Your task to perform on an android device: check storage Image 0: 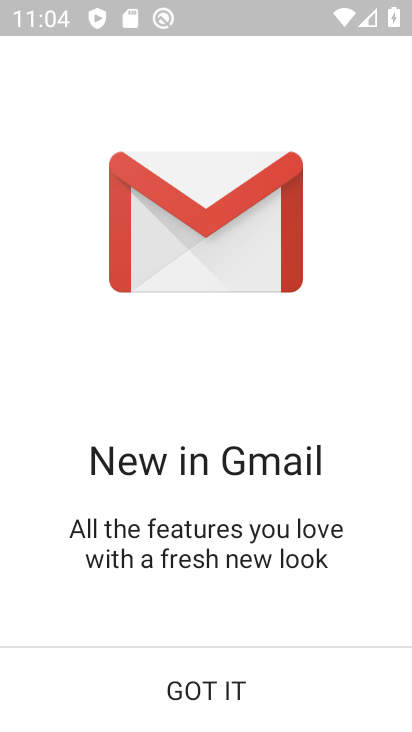
Step 0: press home button
Your task to perform on an android device: check storage Image 1: 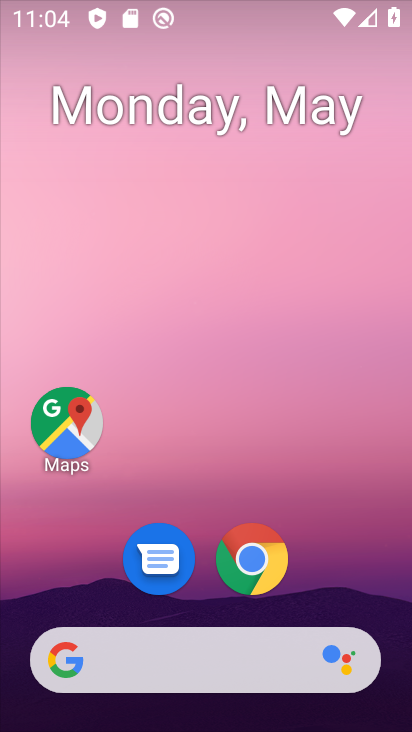
Step 1: drag from (390, 607) to (287, 4)
Your task to perform on an android device: check storage Image 2: 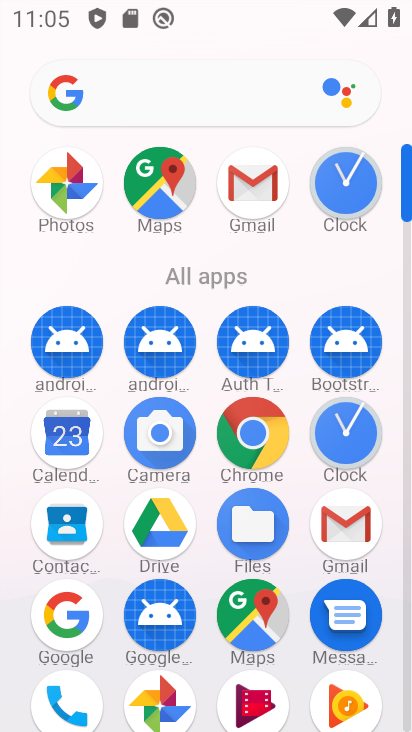
Step 2: drag from (205, 643) to (191, 140)
Your task to perform on an android device: check storage Image 3: 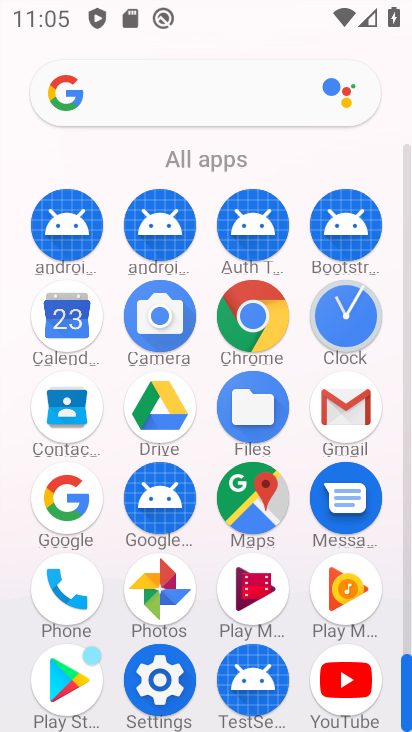
Step 3: click (168, 672)
Your task to perform on an android device: check storage Image 4: 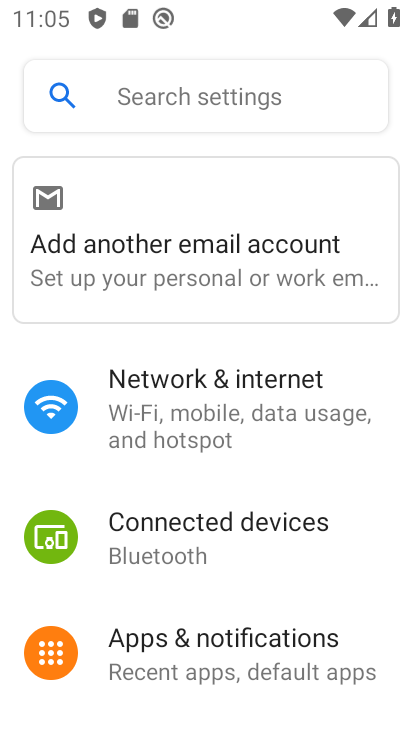
Step 4: drag from (175, 622) to (220, 146)
Your task to perform on an android device: check storage Image 5: 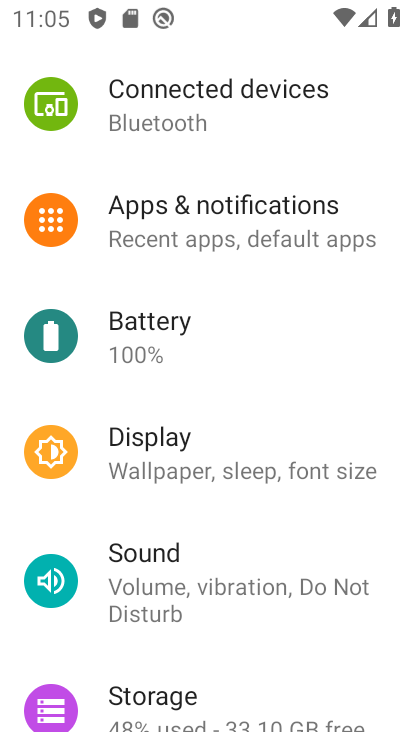
Step 5: click (178, 712)
Your task to perform on an android device: check storage Image 6: 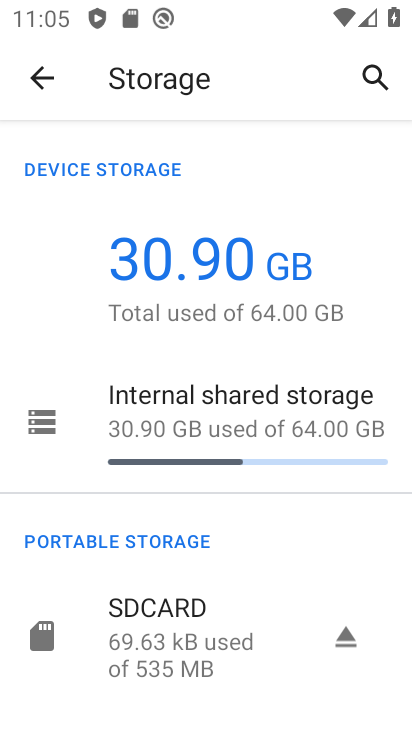
Step 6: click (186, 416)
Your task to perform on an android device: check storage Image 7: 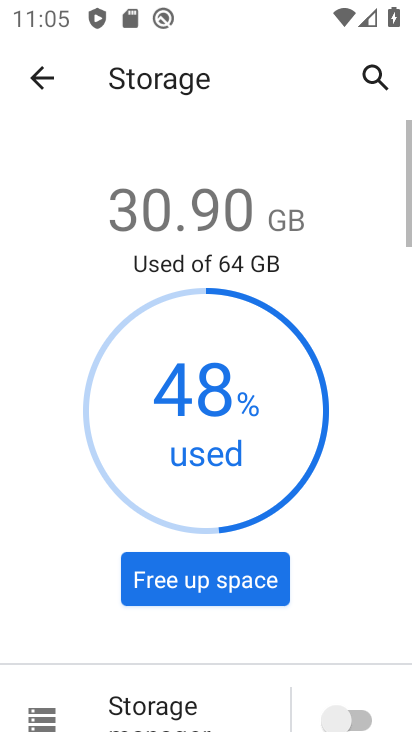
Step 7: task complete